Your task to perform on an android device: turn off picture-in-picture Image 0: 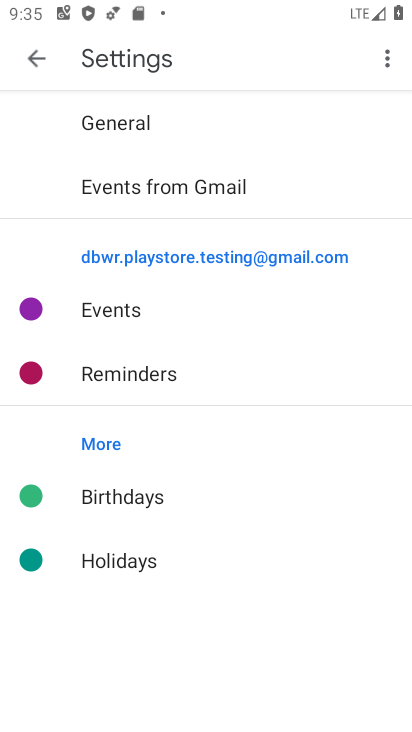
Step 0: press home button
Your task to perform on an android device: turn off picture-in-picture Image 1: 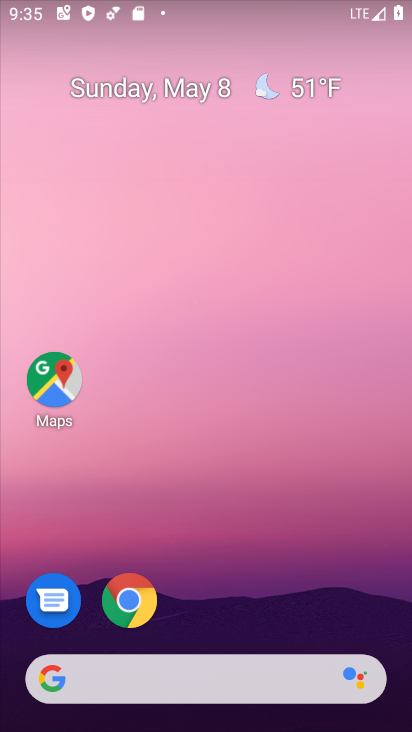
Step 1: click (136, 601)
Your task to perform on an android device: turn off picture-in-picture Image 2: 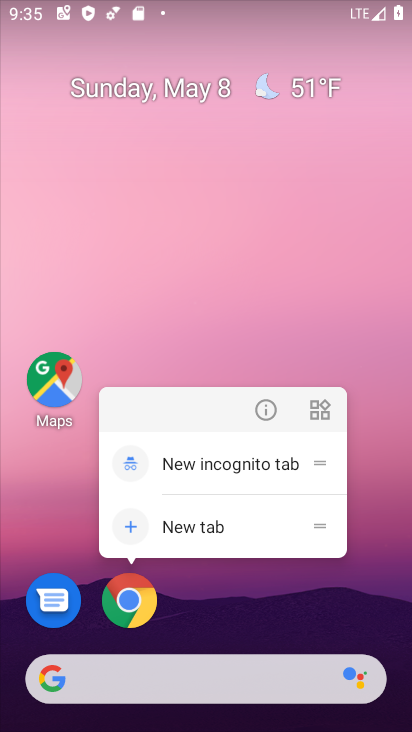
Step 2: click (276, 417)
Your task to perform on an android device: turn off picture-in-picture Image 3: 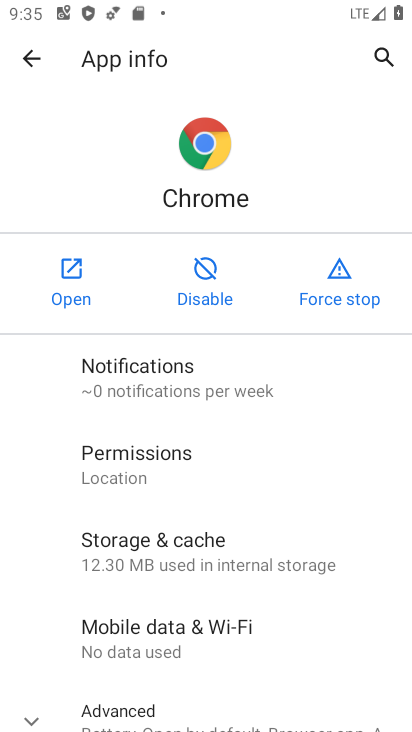
Step 3: drag from (321, 628) to (343, 65)
Your task to perform on an android device: turn off picture-in-picture Image 4: 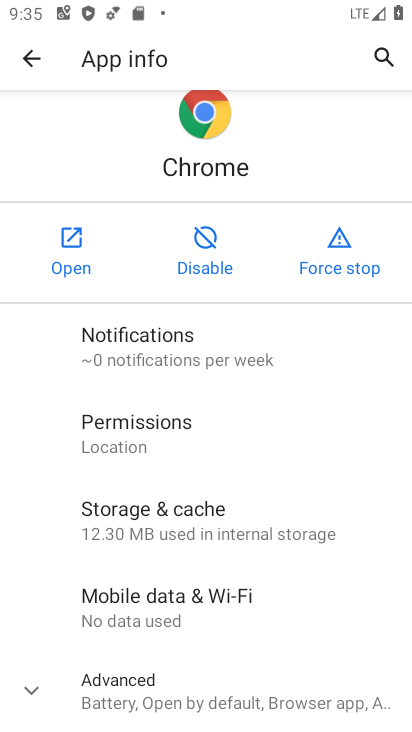
Step 4: click (34, 696)
Your task to perform on an android device: turn off picture-in-picture Image 5: 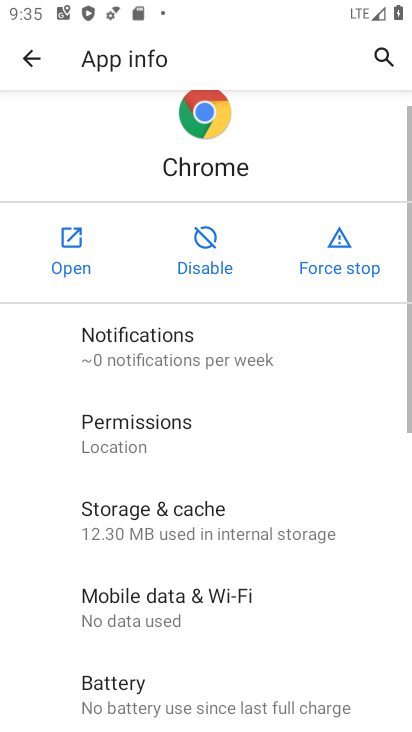
Step 5: drag from (236, 675) to (206, 199)
Your task to perform on an android device: turn off picture-in-picture Image 6: 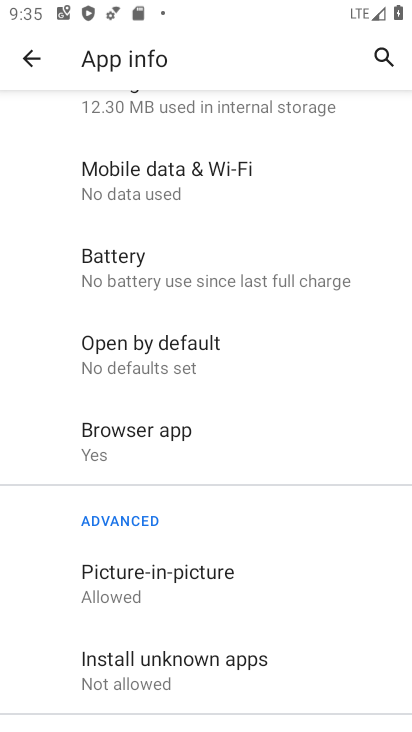
Step 6: click (133, 574)
Your task to perform on an android device: turn off picture-in-picture Image 7: 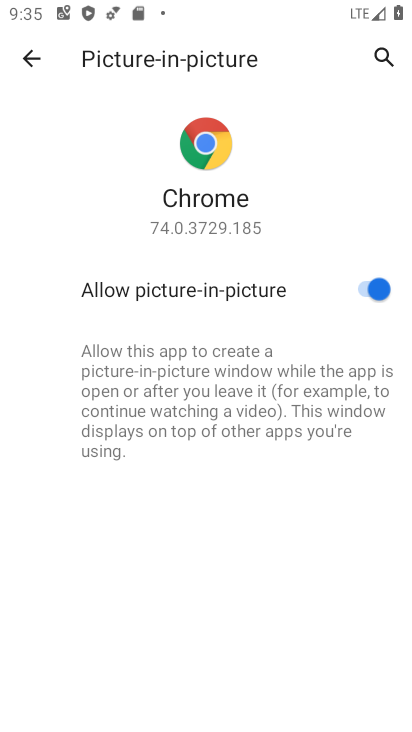
Step 7: click (374, 297)
Your task to perform on an android device: turn off picture-in-picture Image 8: 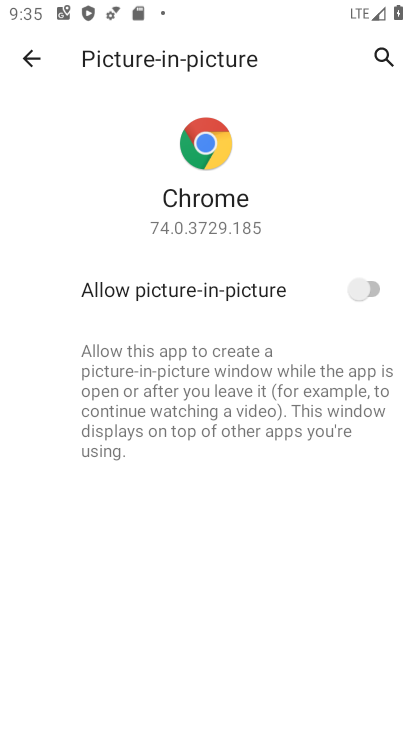
Step 8: task complete